Your task to perform on an android device: Turn on the flashlight Image 0: 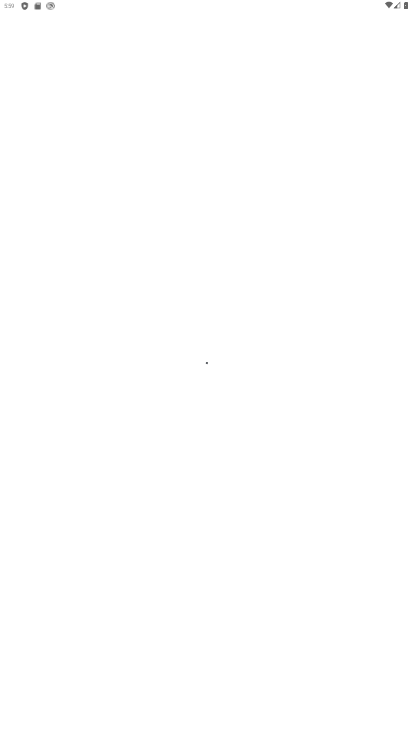
Step 0: press home button
Your task to perform on an android device: Turn on the flashlight Image 1: 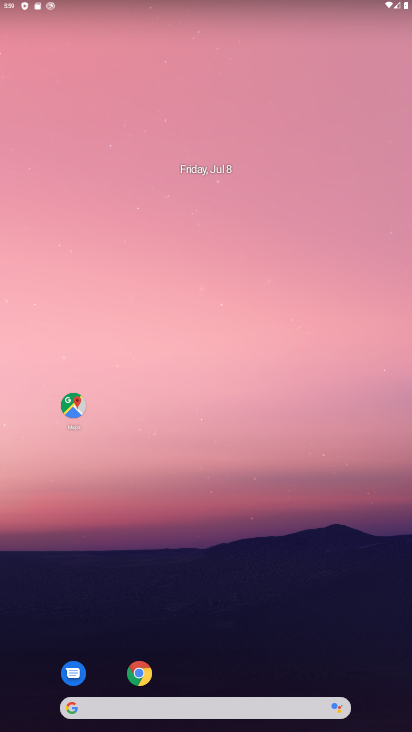
Step 1: task complete